Your task to perform on an android device: change the clock display to analog Image 0: 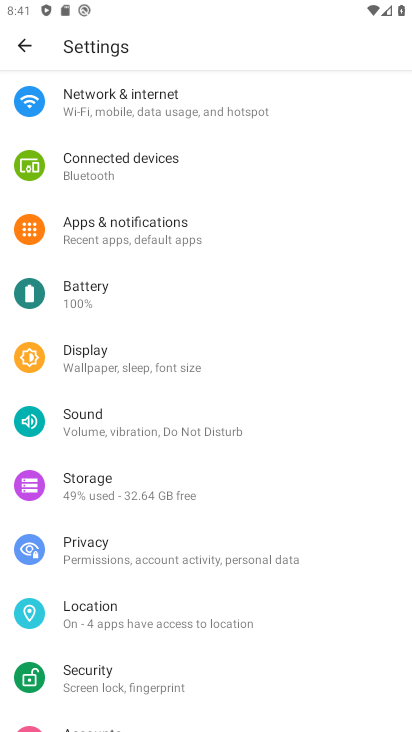
Step 0: press home button
Your task to perform on an android device: change the clock display to analog Image 1: 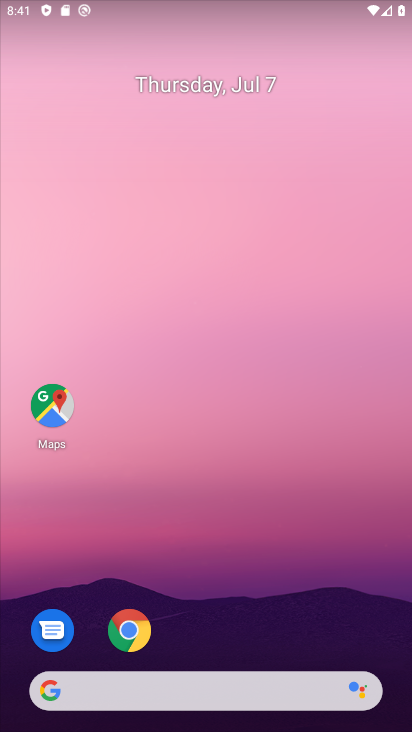
Step 1: drag from (210, 623) to (202, 215)
Your task to perform on an android device: change the clock display to analog Image 2: 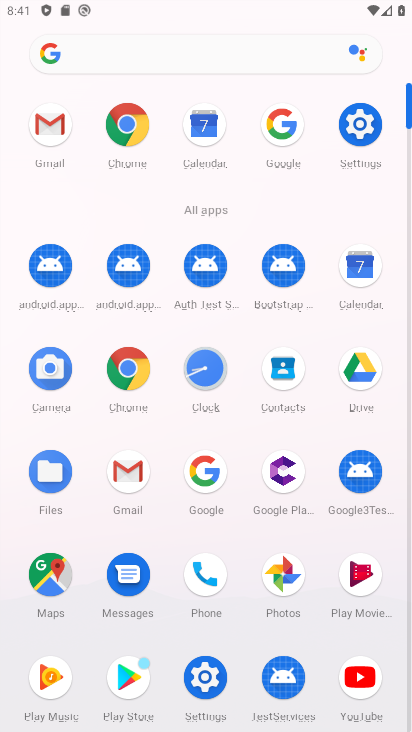
Step 2: click (199, 369)
Your task to perform on an android device: change the clock display to analog Image 3: 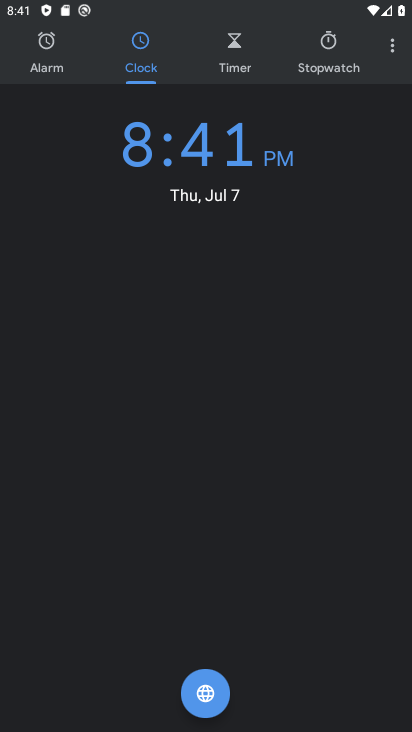
Step 3: click (389, 52)
Your task to perform on an android device: change the clock display to analog Image 4: 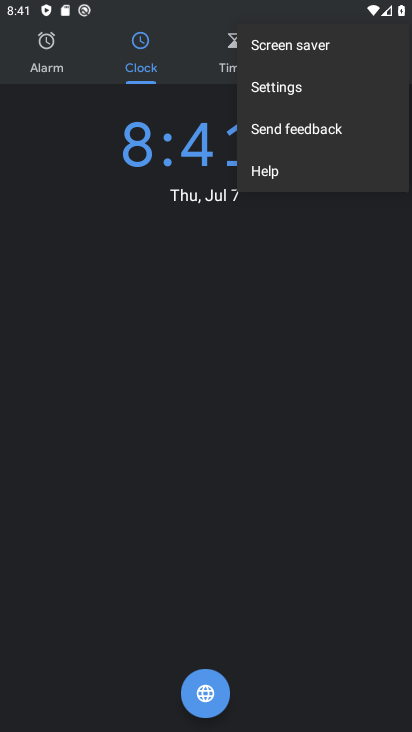
Step 4: click (281, 87)
Your task to perform on an android device: change the clock display to analog Image 5: 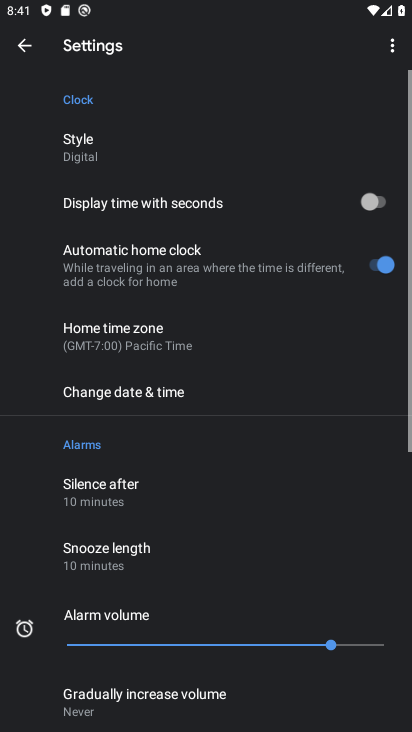
Step 5: click (75, 141)
Your task to perform on an android device: change the clock display to analog Image 6: 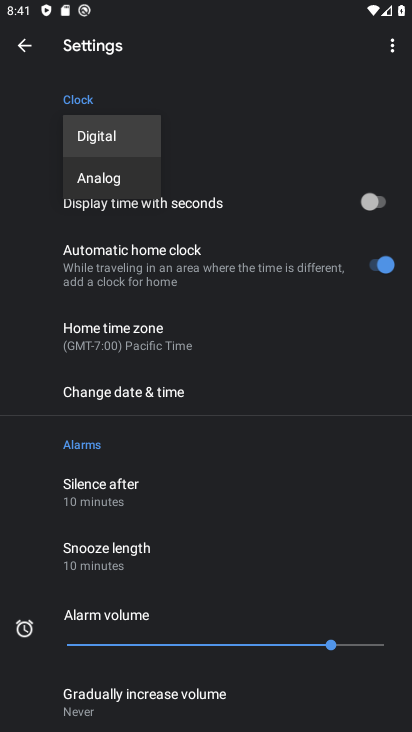
Step 6: click (131, 183)
Your task to perform on an android device: change the clock display to analog Image 7: 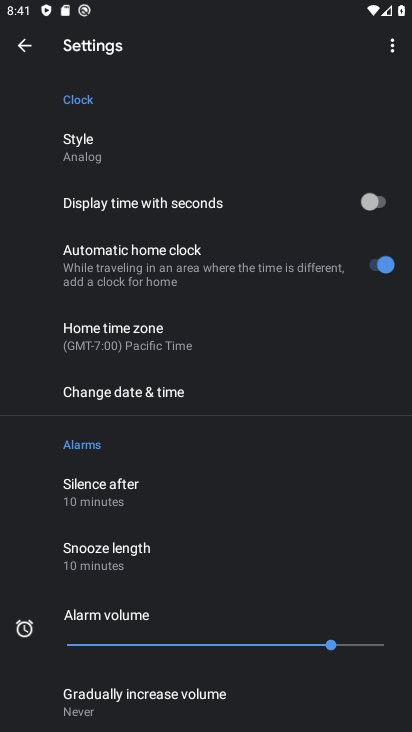
Step 7: task complete